Your task to perform on an android device: Open Reddit.com Image 0: 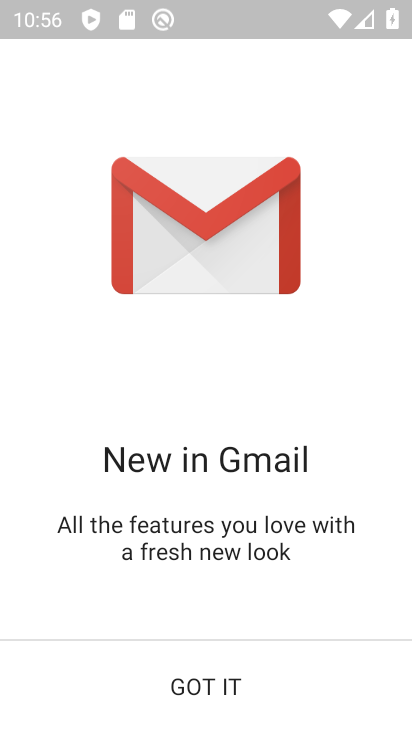
Step 0: press home button
Your task to perform on an android device: Open Reddit.com Image 1: 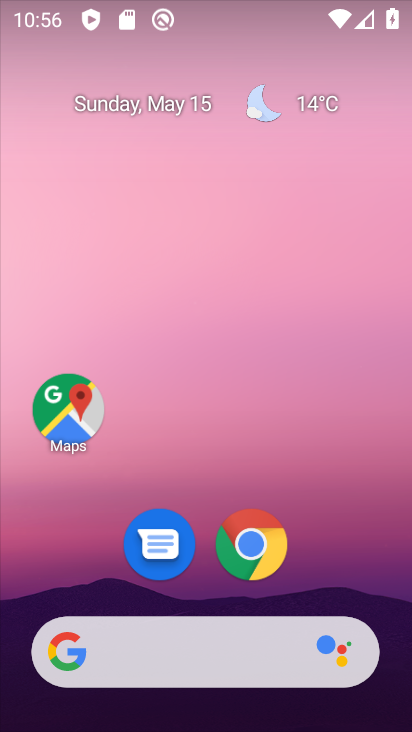
Step 1: click (177, 660)
Your task to perform on an android device: Open Reddit.com Image 2: 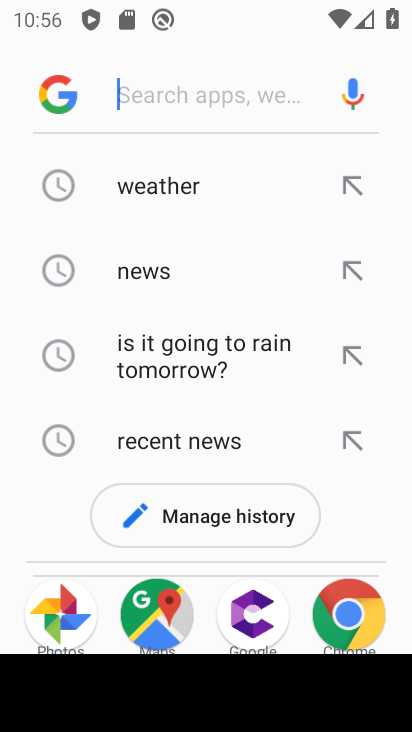
Step 2: type "Reddit.com"
Your task to perform on an android device: Open Reddit.com Image 3: 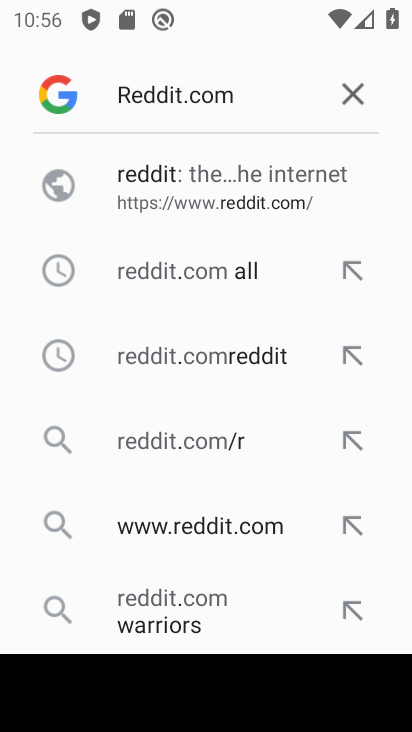
Step 3: click (238, 174)
Your task to perform on an android device: Open Reddit.com Image 4: 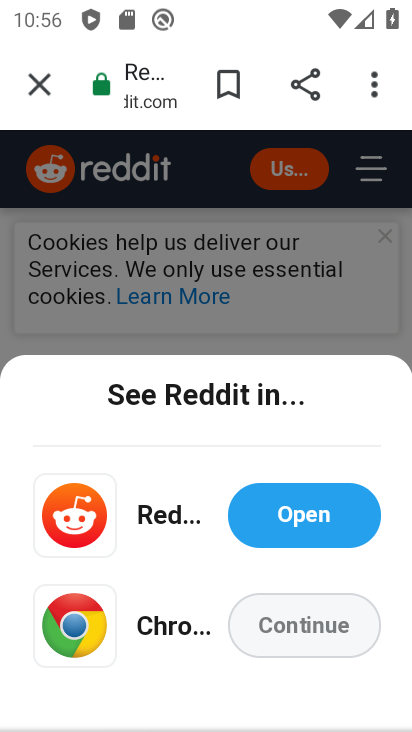
Step 4: task complete